Your task to perform on an android device: turn on notifications settings in the gmail app Image 0: 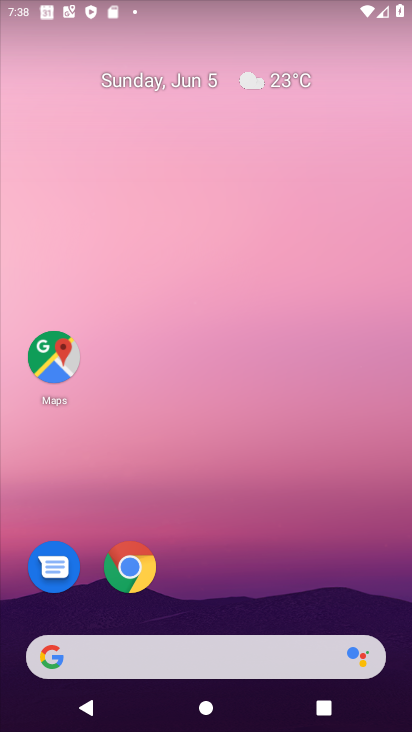
Step 0: drag from (393, 667) to (255, 59)
Your task to perform on an android device: turn on notifications settings in the gmail app Image 1: 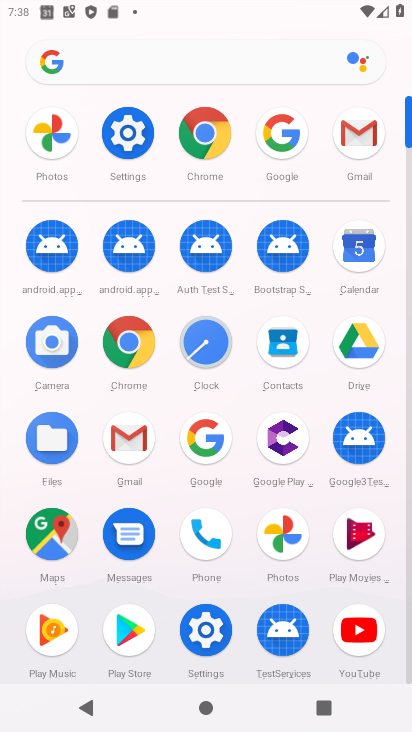
Step 1: click (142, 426)
Your task to perform on an android device: turn on notifications settings in the gmail app Image 2: 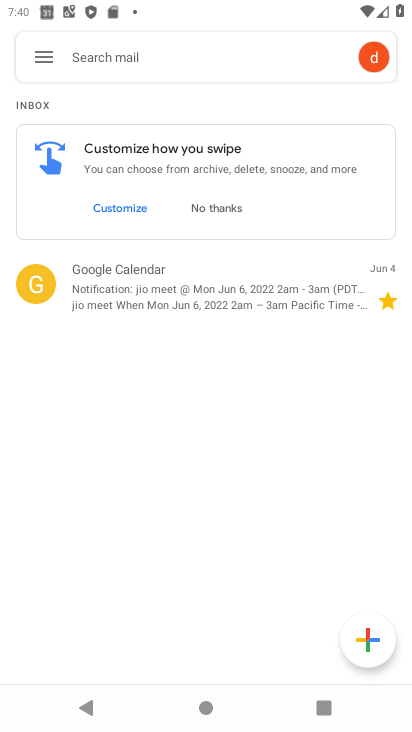
Step 2: click (33, 70)
Your task to perform on an android device: turn on notifications settings in the gmail app Image 3: 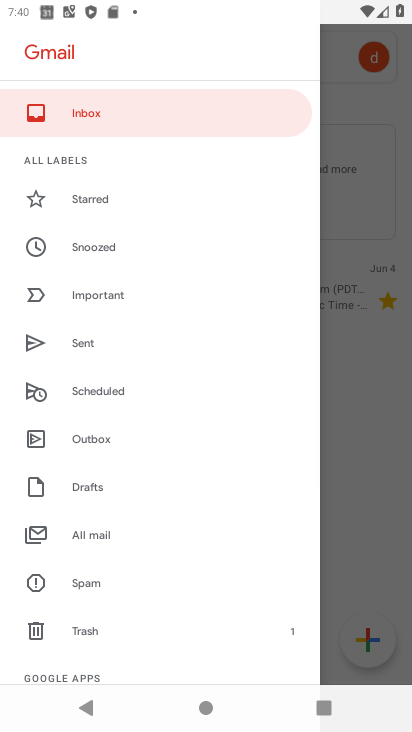
Step 3: drag from (113, 647) to (185, 99)
Your task to perform on an android device: turn on notifications settings in the gmail app Image 4: 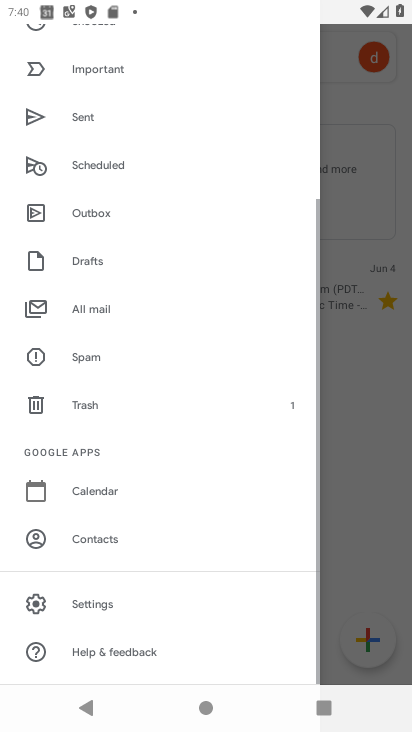
Step 4: click (141, 610)
Your task to perform on an android device: turn on notifications settings in the gmail app Image 5: 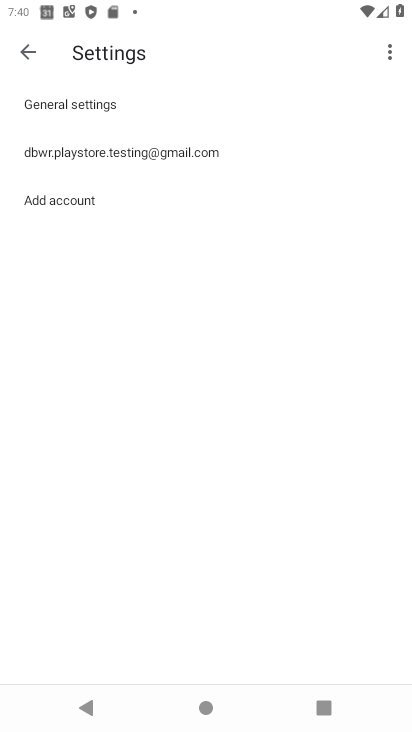
Step 5: click (192, 162)
Your task to perform on an android device: turn on notifications settings in the gmail app Image 6: 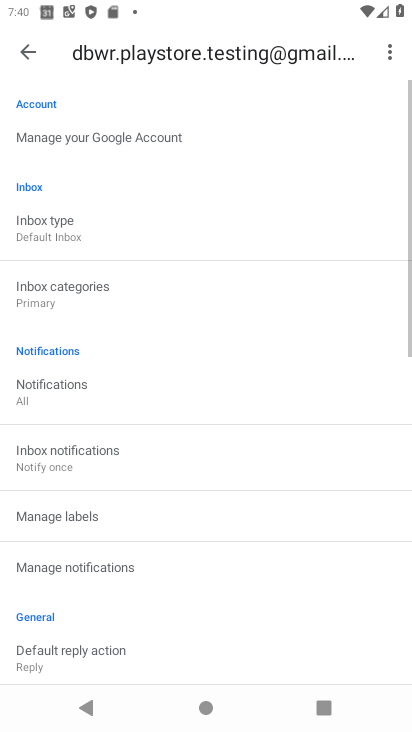
Step 6: click (108, 399)
Your task to perform on an android device: turn on notifications settings in the gmail app Image 7: 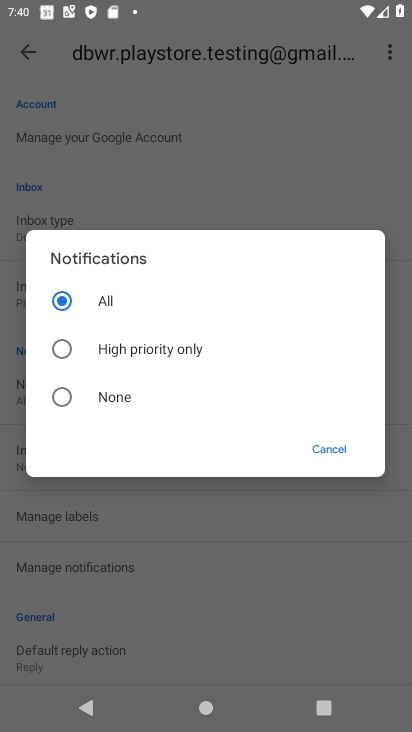
Step 7: task complete